Your task to perform on an android device: What's the weather going to be this weekend? Image 0: 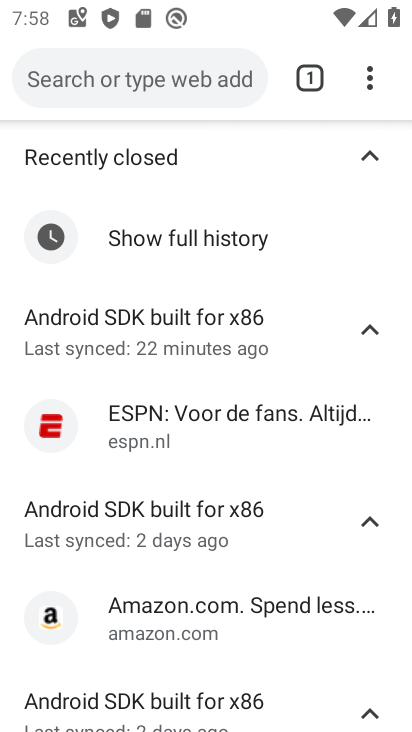
Step 0: press home button
Your task to perform on an android device: What's the weather going to be this weekend? Image 1: 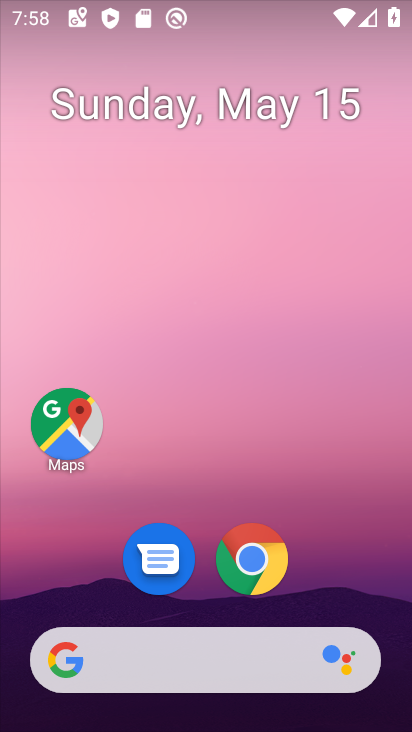
Step 1: click (206, 670)
Your task to perform on an android device: What's the weather going to be this weekend? Image 2: 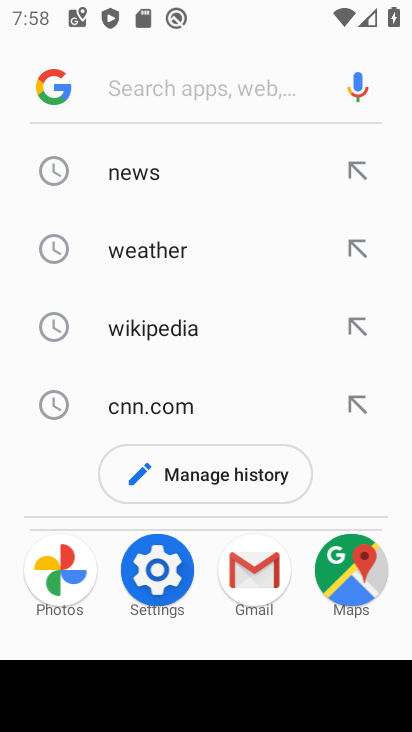
Step 2: click (171, 179)
Your task to perform on an android device: What's the weather going to be this weekend? Image 3: 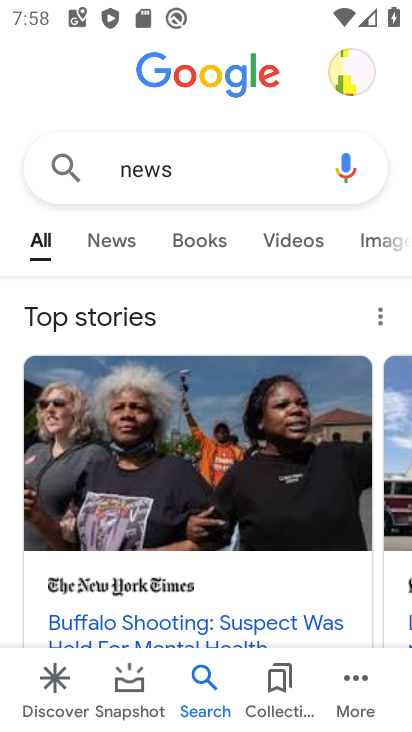
Step 3: press back button
Your task to perform on an android device: What's the weather going to be this weekend? Image 4: 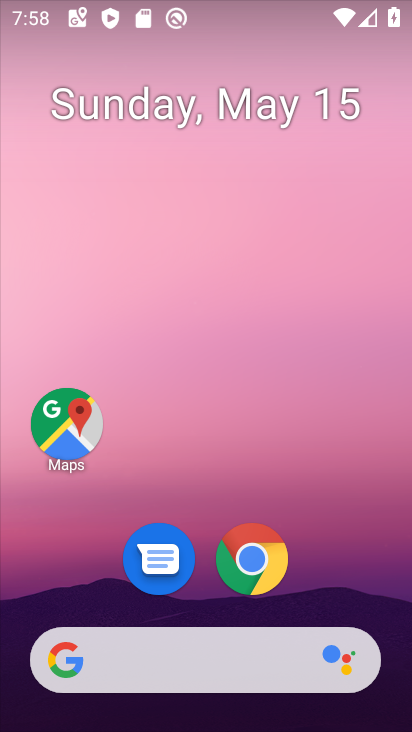
Step 4: click (234, 649)
Your task to perform on an android device: What's the weather going to be this weekend? Image 5: 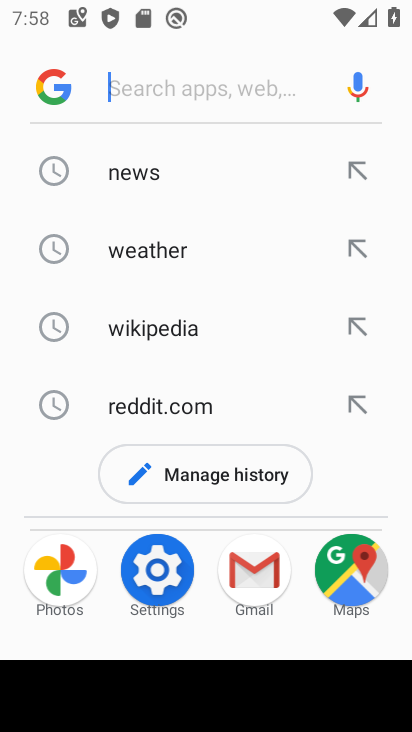
Step 5: click (236, 237)
Your task to perform on an android device: What's the weather going to be this weekend? Image 6: 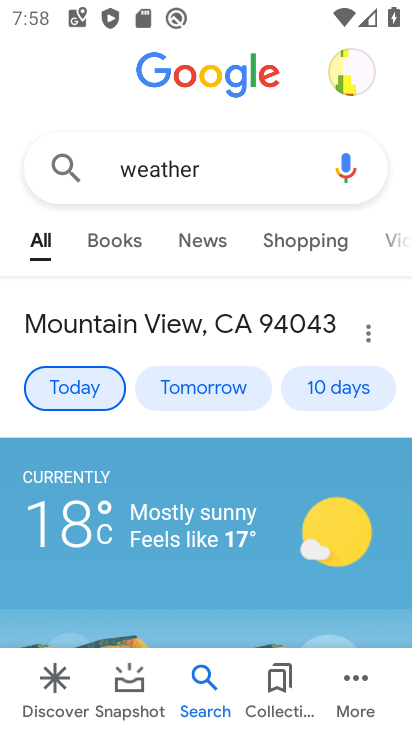
Step 6: click (296, 359)
Your task to perform on an android device: What's the weather going to be this weekend? Image 7: 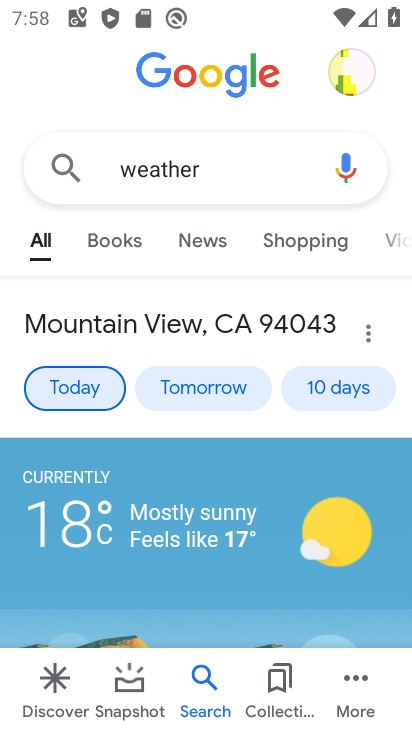
Step 7: click (306, 369)
Your task to perform on an android device: What's the weather going to be this weekend? Image 8: 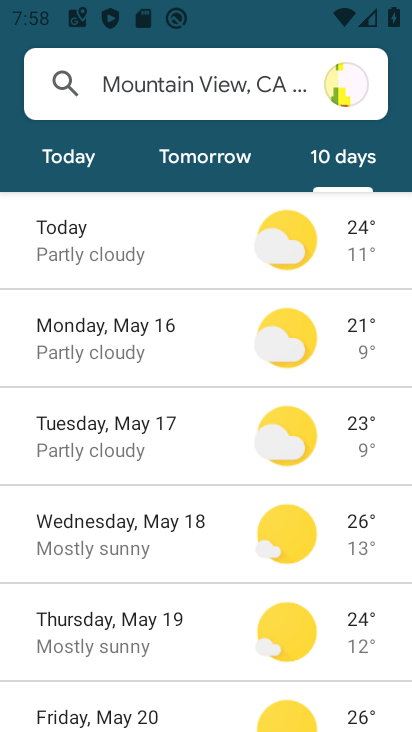
Step 8: task complete